Your task to perform on an android device: turn off data saver in the chrome app Image 0: 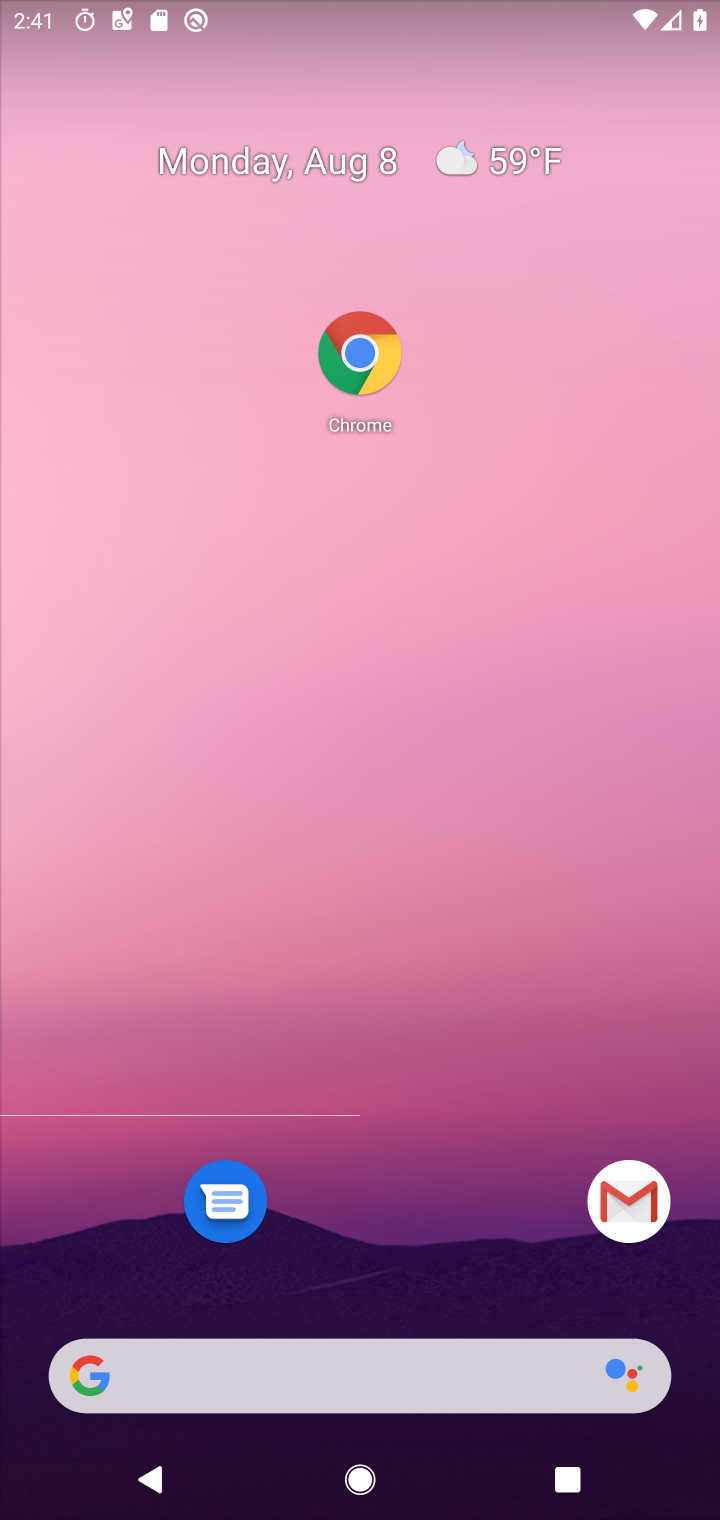
Step 0: drag from (427, 1312) to (475, 116)
Your task to perform on an android device: turn off data saver in the chrome app Image 1: 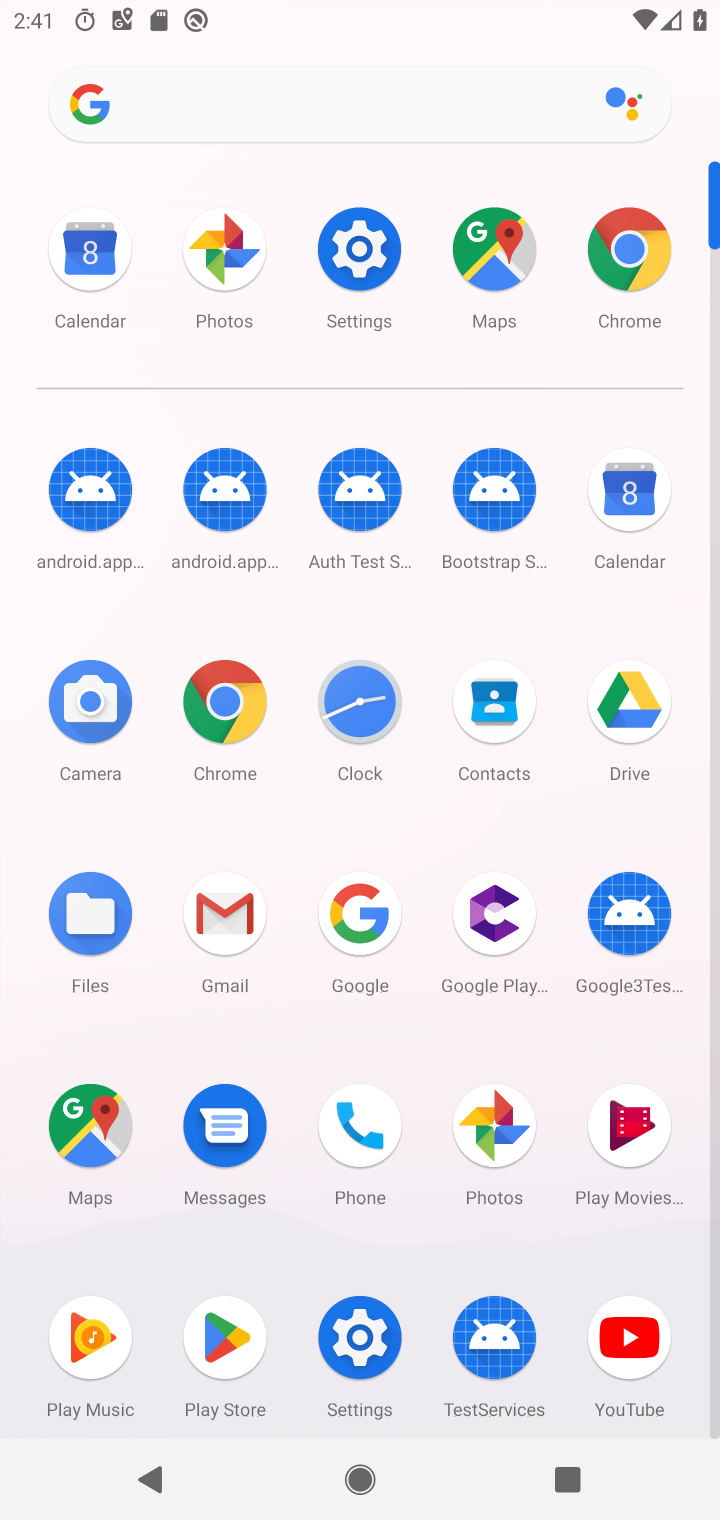
Step 1: click (640, 240)
Your task to perform on an android device: turn off data saver in the chrome app Image 2: 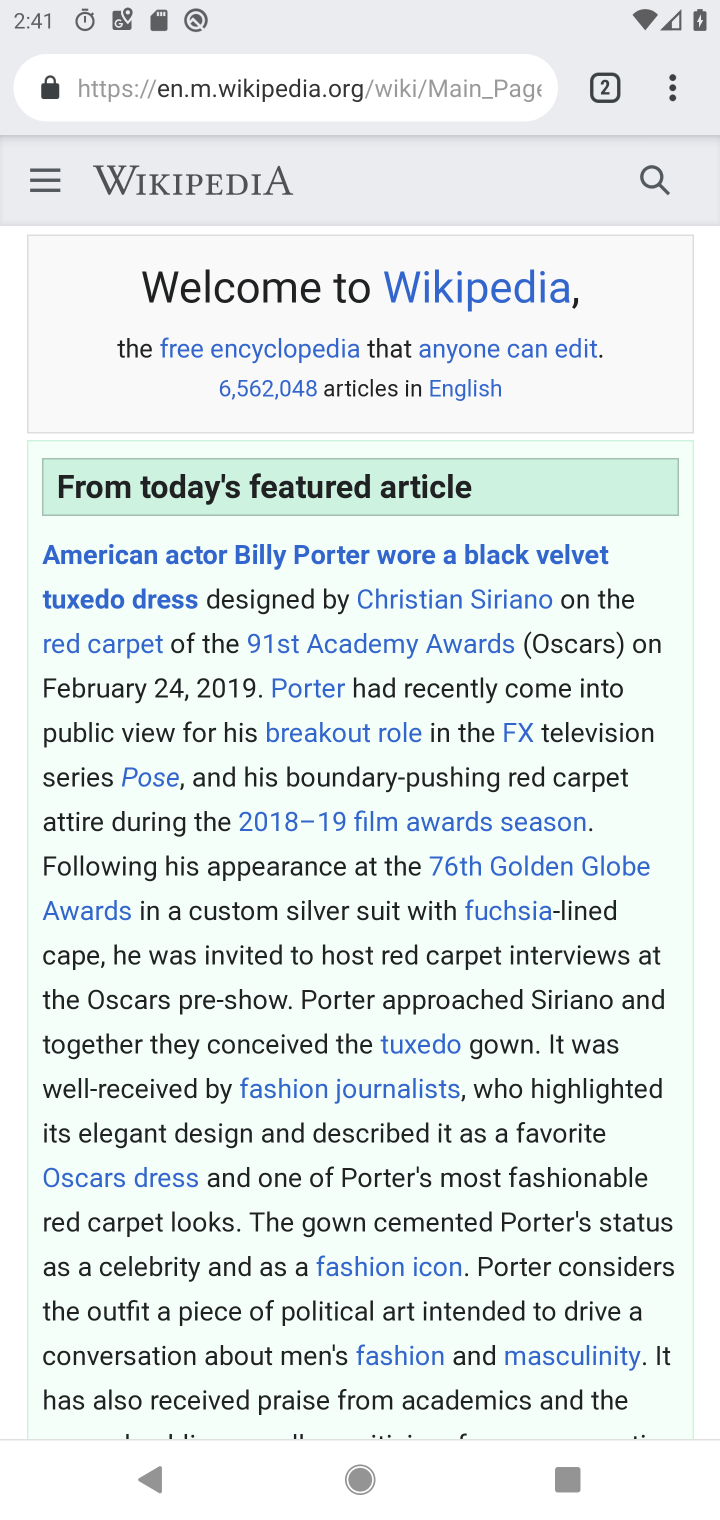
Step 2: click (673, 97)
Your task to perform on an android device: turn off data saver in the chrome app Image 3: 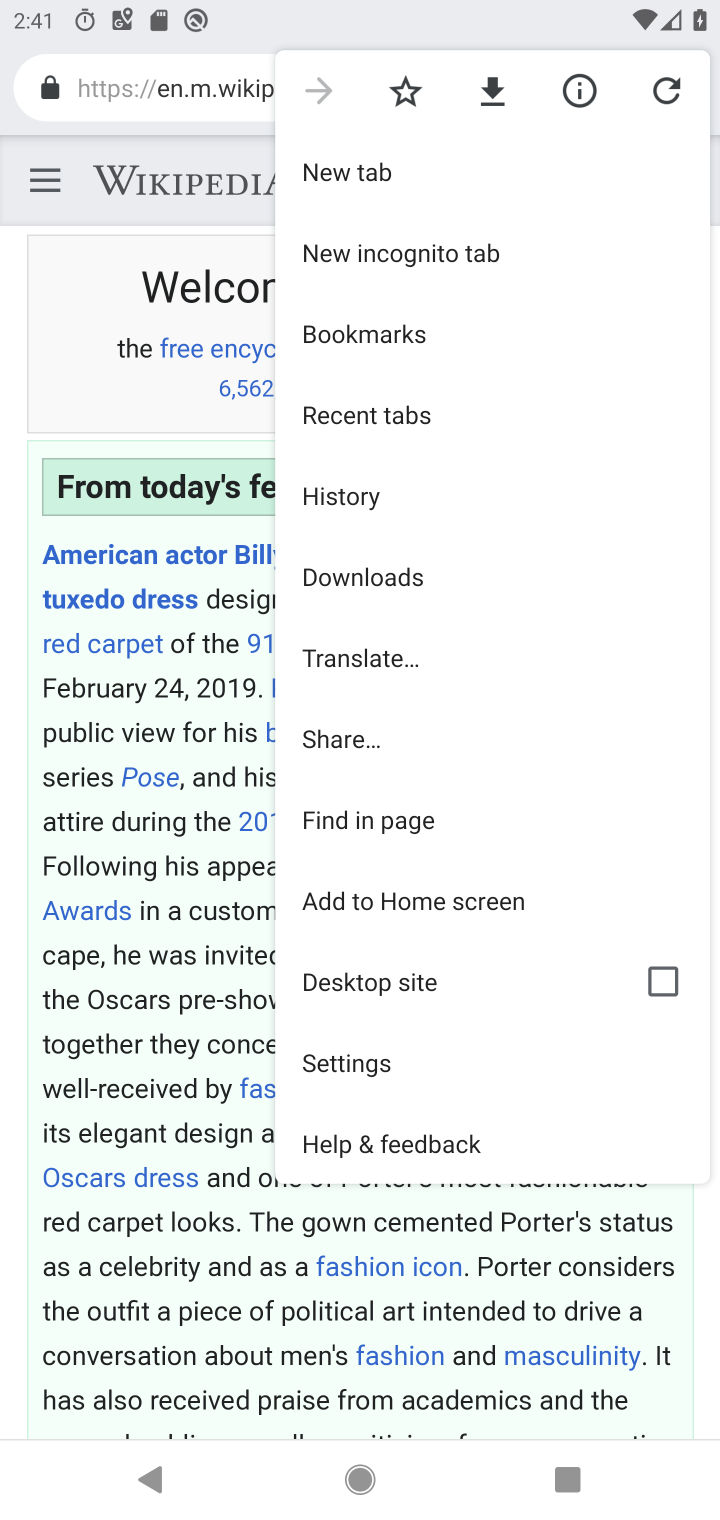
Step 3: click (380, 1071)
Your task to perform on an android device: turn off data saver in the chrome app Image 4: 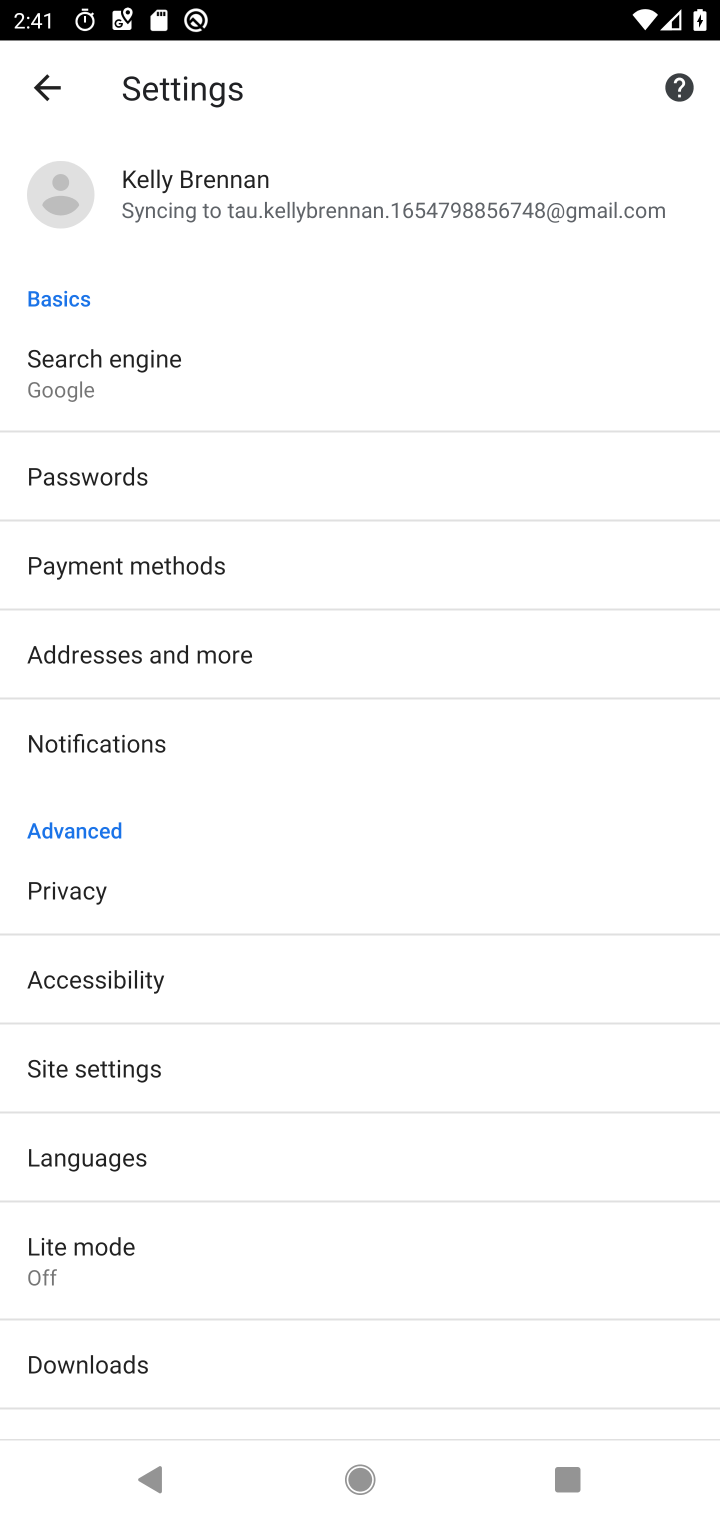
Step 4: drag from (223, 1247) to (375, 813)
Your task to perform on an android device: turn off data saver in the chrome app Image 5: 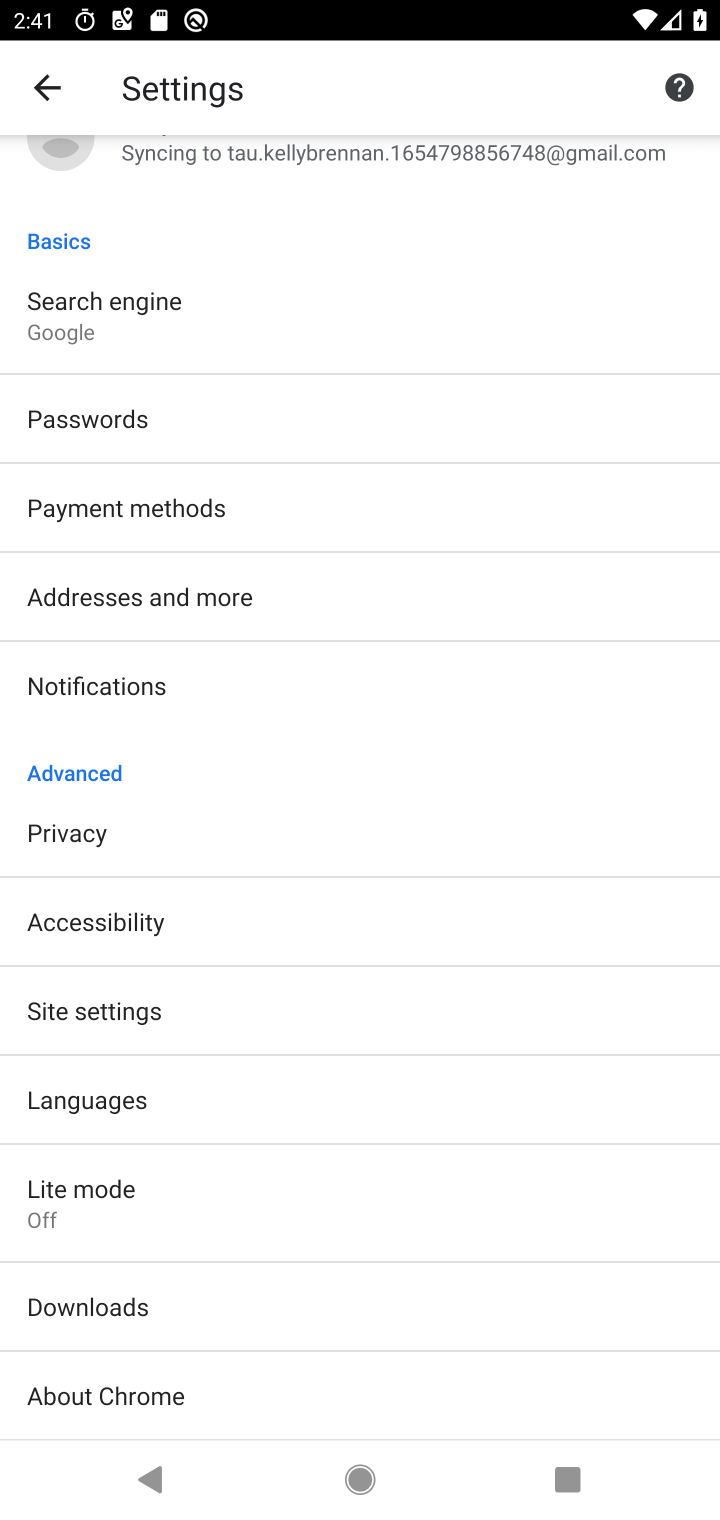
Step 5: click (100, 1174)
Your task to perform on an android device: turn off data saver in the chrome app Image 6: 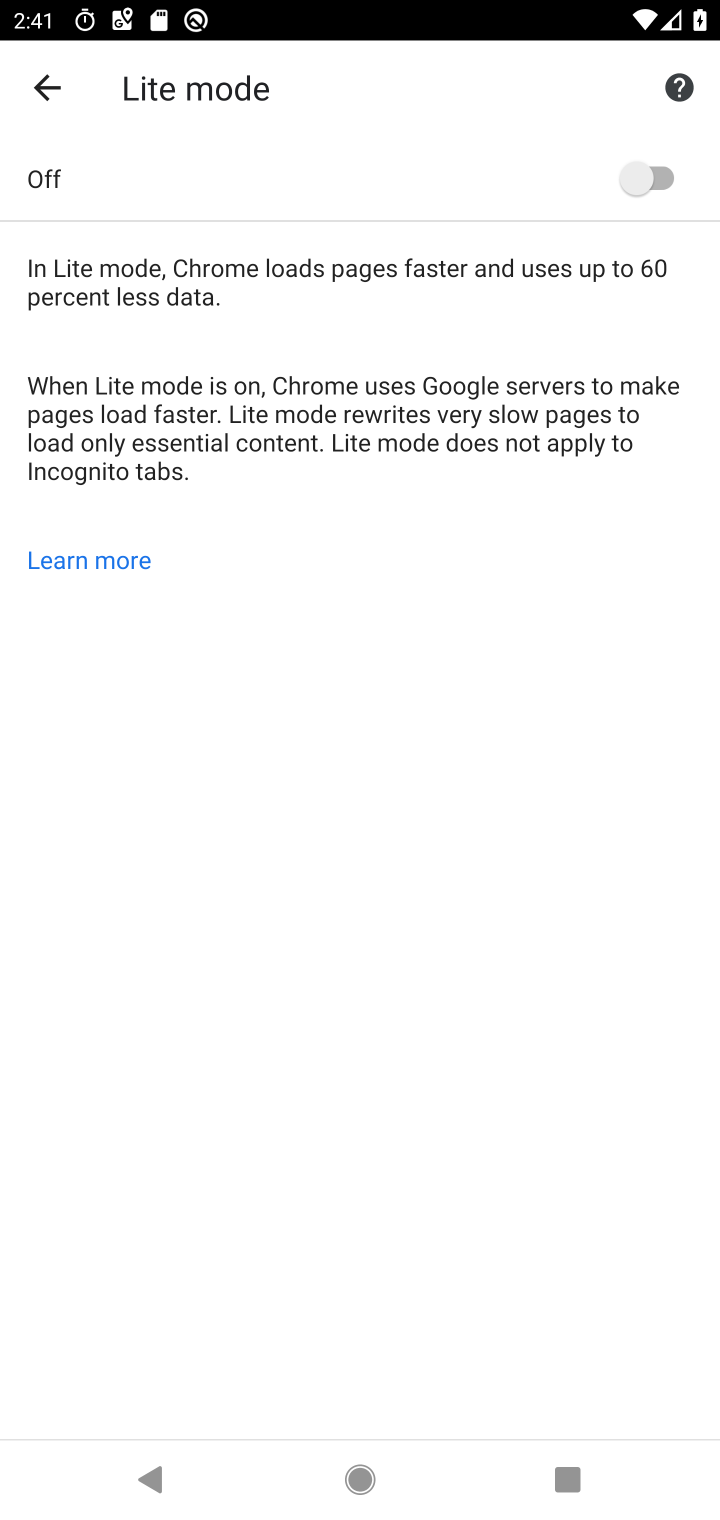
Step 6: click (672, 187)
Your task to perform on an android device: turn off data saver in the chrome app Image 7: 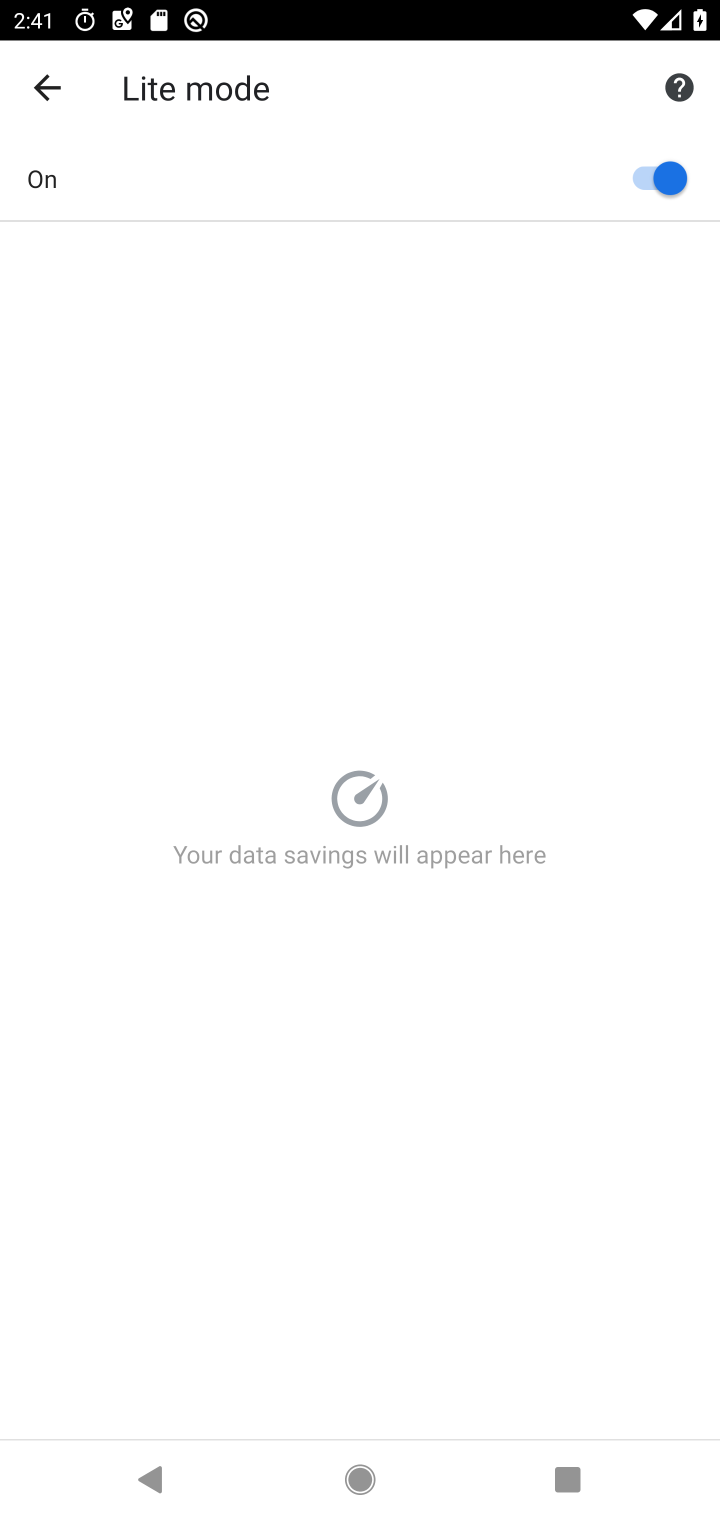
Step 7: click (672, 183)
Your task to perform on an android device: turn off data saver in the chrome app Image 8: 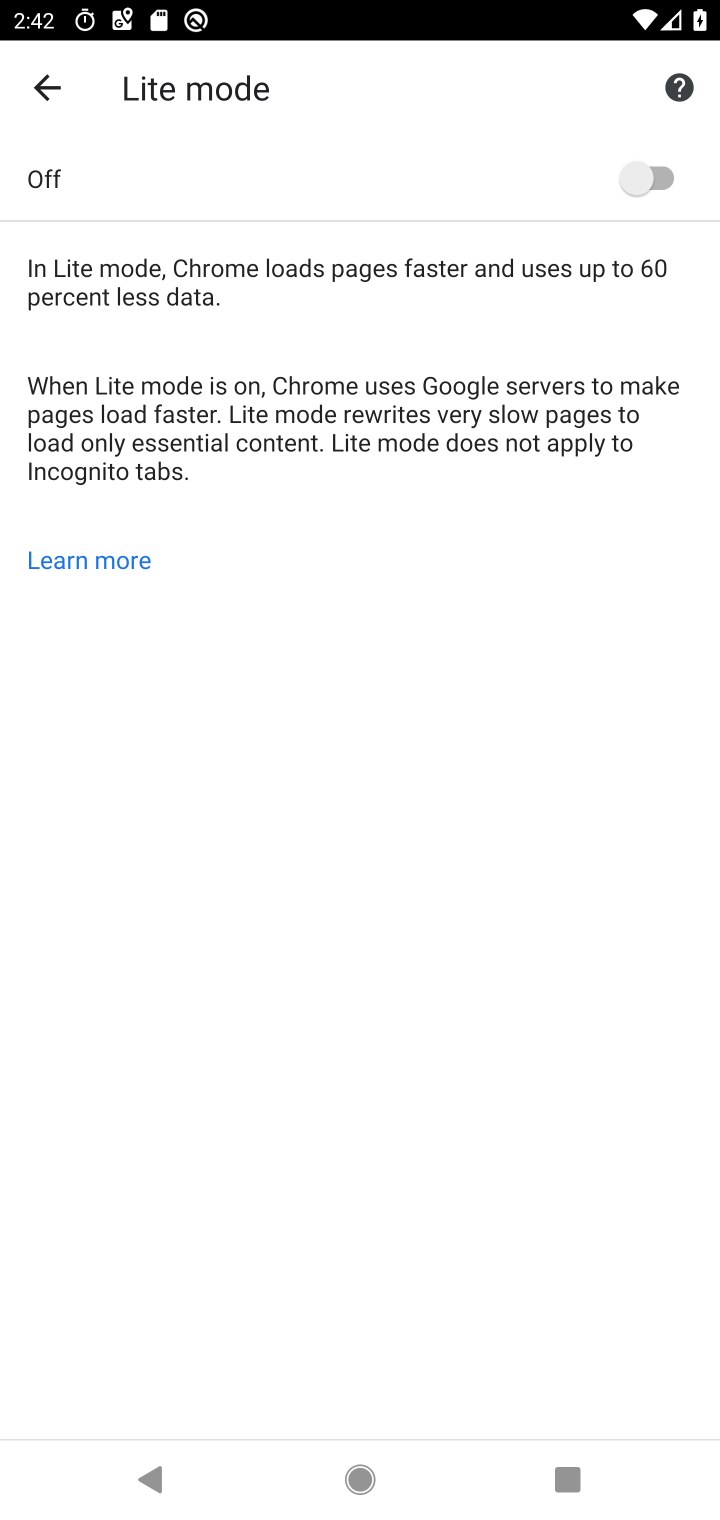
Step 8: task complete